Your task to perform on an android device: turn on location history Image 0: 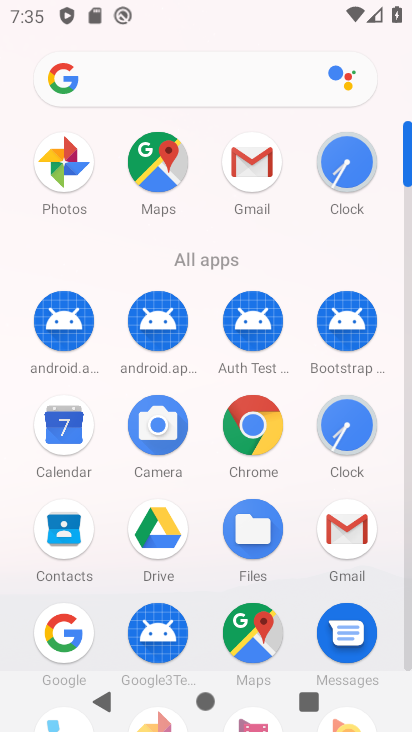
Step 0: drag from (194, 608) to (240, 289)
Your task to perform on an android device: turn on location history Image 1: 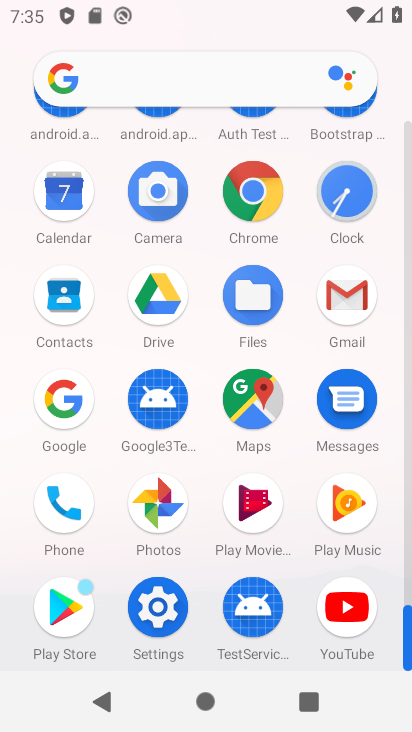
Step 1: click (162, 601)
Your task to perform on an android device: turn on location history Image 2: 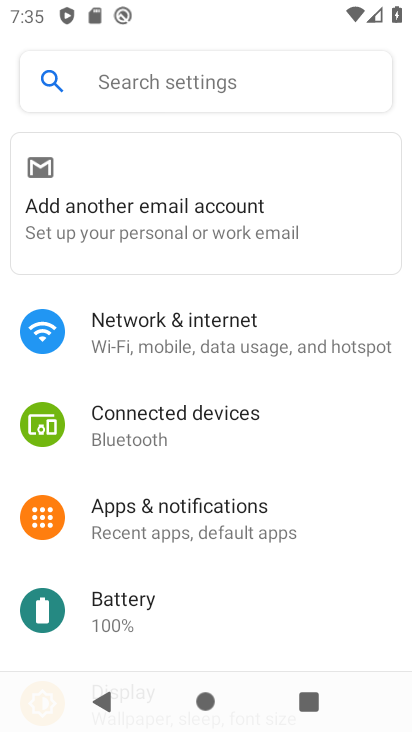
Step 2: drag from (248, 587) to (271, 81)
Your task to perform on an android device: turn on location history Image 3: 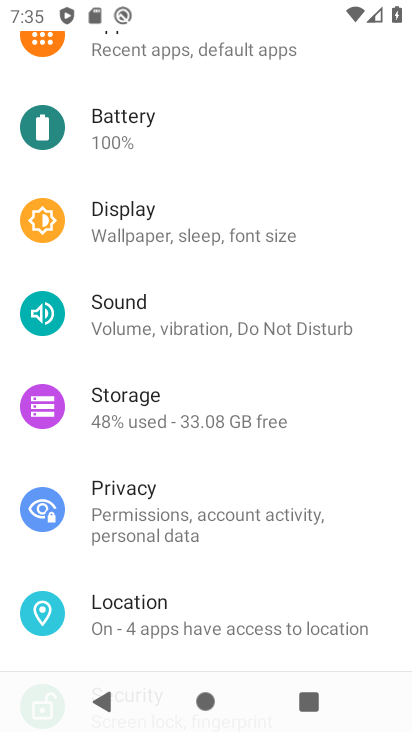
Step 3: click (246, 617)
Your task to perform on an android device: turn on location history Image 4: 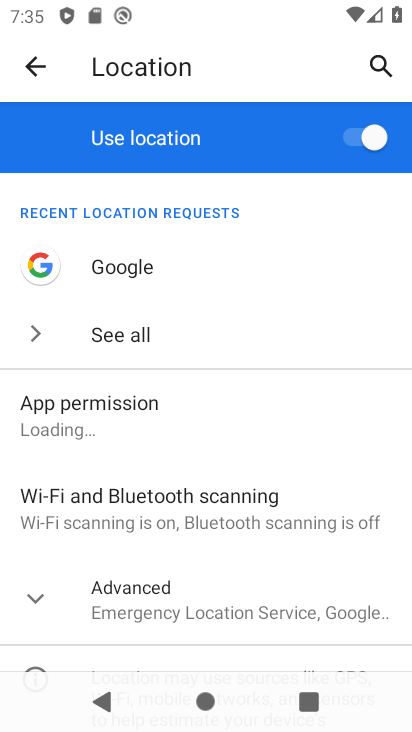
Step 4: click (33, 595)
Your task to perform on an android device: turn on location history Image 5: 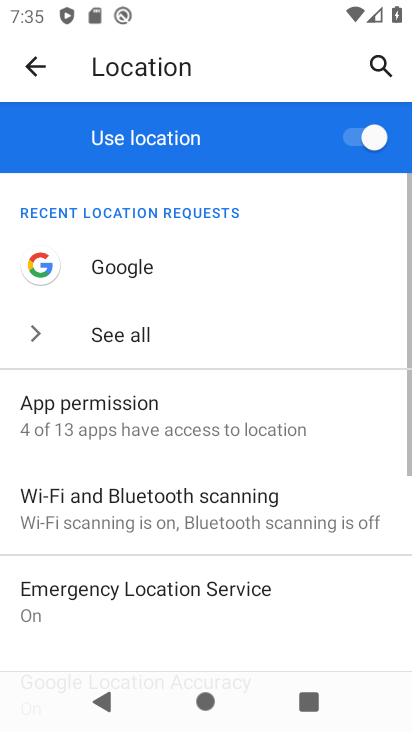
Step 5: drag from (243, 409) to (269, 180)
Your task to perform on an android device: turn on location history Image 6: 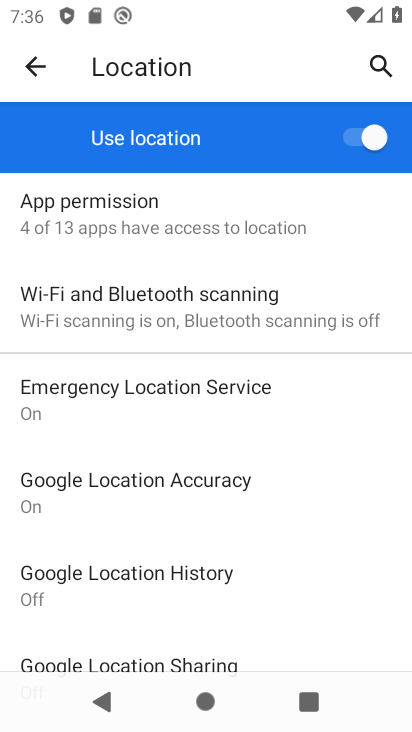
Step 6: click (201, 583)
Your task to perform on an android device: turn on location history Image 7: 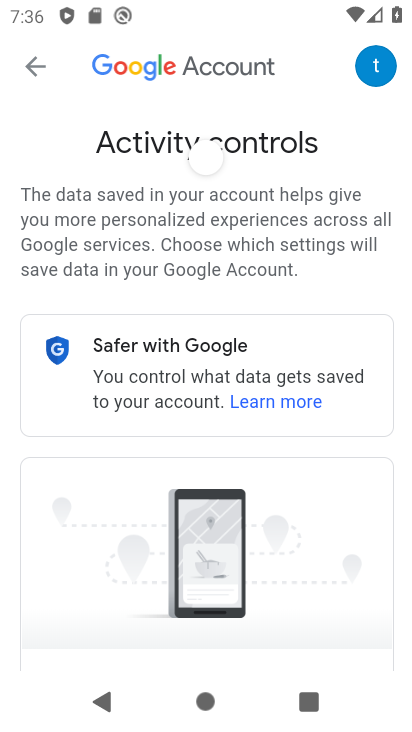
Step 7: drag from (297, 563) to (277, 133)
Your task to perform on an android device: turn on location history Image 8: 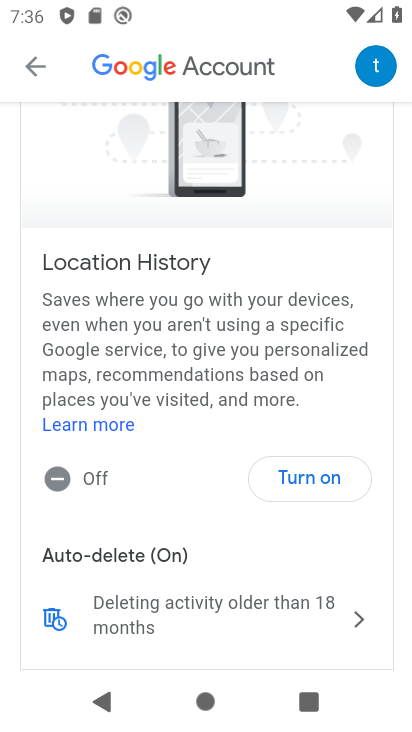
Step 8: click (319, 473)
Your task to perform on an android device: turn on location history Image 9: 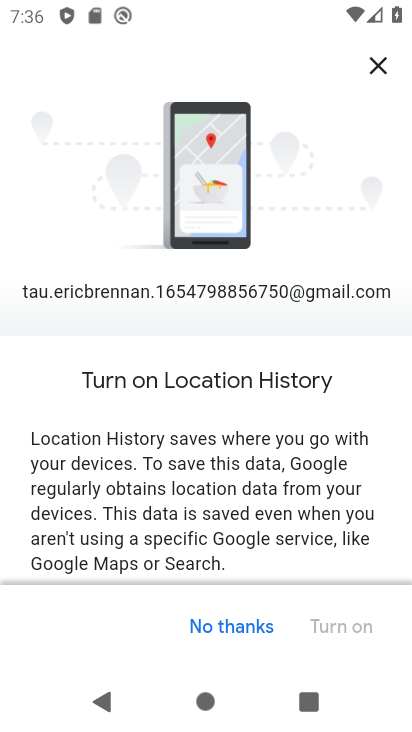
Step 9: drag from (309, 519) to (299, 157)
Your task to perform on an android device: turn on location history Image 10: 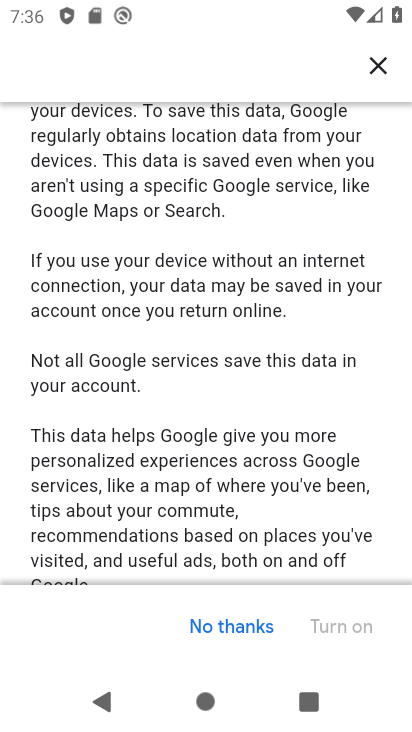
Step 10: drag from (294, 487) to (296, 153)
Your task to perform on an android device: turn on location history Image 11: 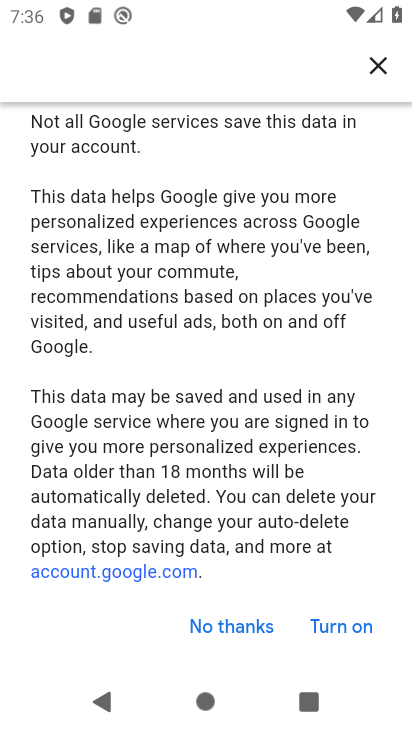
Step 11: drag from (252, 536) to (262, 225)
Your task to perform on an android device: turn on location history Image 12: 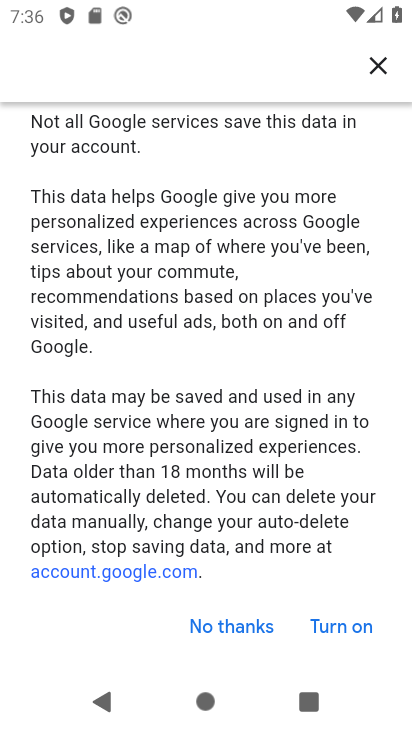
Step 12: click (337, 622)
Your task to perform on an android device: turn on location history Image 13: 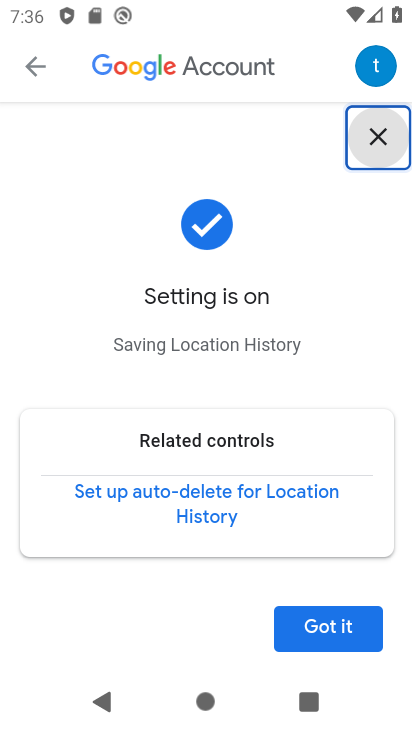
Step 13: click (338, 633)
Your task to perform on an android device: turn on location history Image 14: 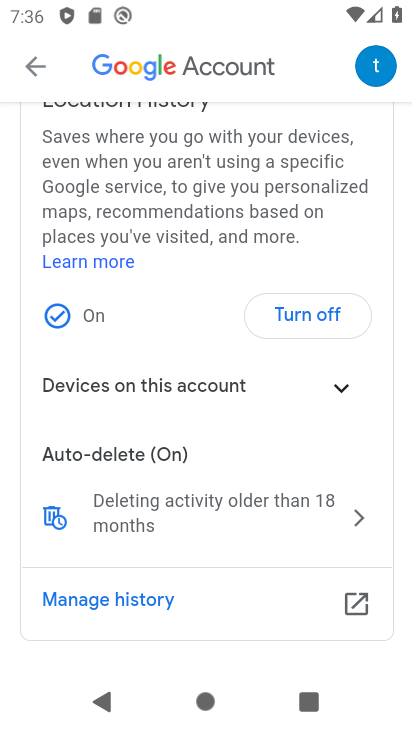
Step 14: task complete